Your task to perform on an android device: turn vacation reply on in the gmail app Image 0: 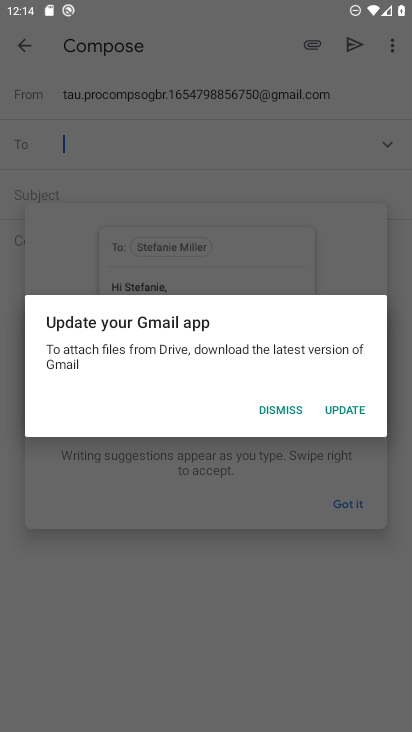
Step 0: press home button
Your task to perform on an android device: turn vacation reply on in the gmail app Image 1: 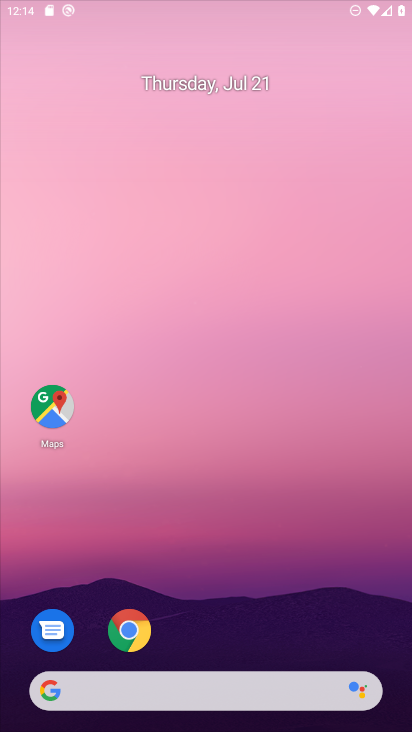
Step 1: drag from (249, 604) to (326, 64)
Your task to perform on an android device: turn vacation reply on in the gmail app Image 2: 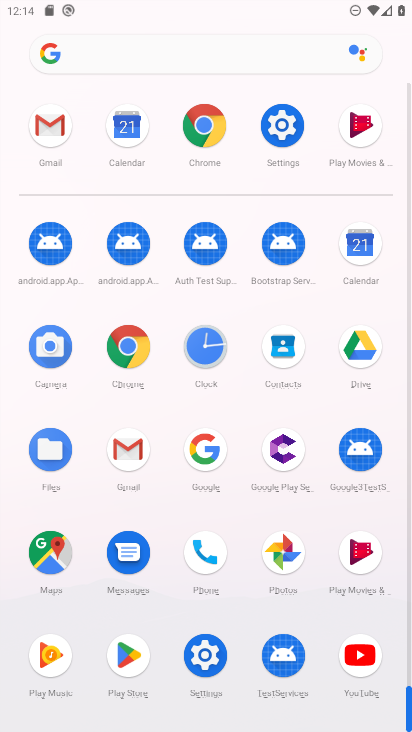
Step 2: click (127, 450)
Your task to perform on an android device: turn vacation reply on in the gmail app Image 3: 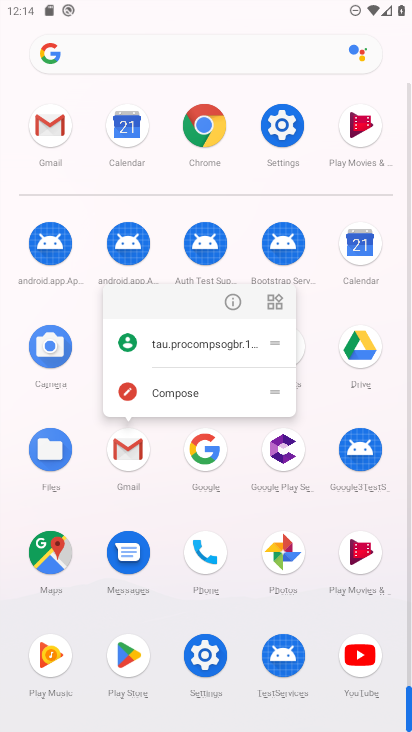
Step 3: click (225, 297)
Your task to perform on an android device: turn vacation reply on in the gmail app Image 4: 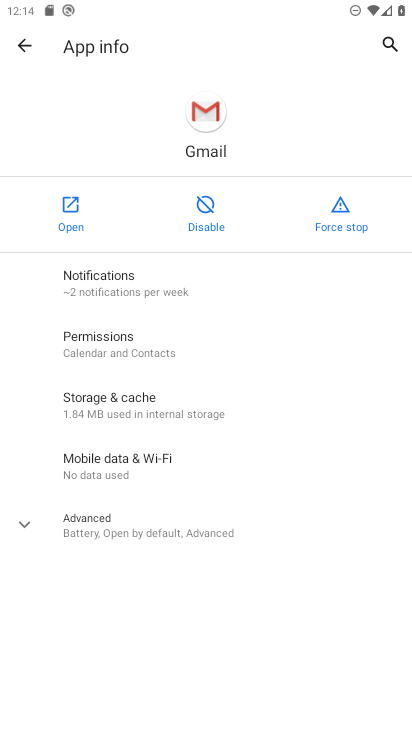
Step 4: click (69, 208)
Your task to perform on an android device: turn vacation reply on in the gmail app Image 5: 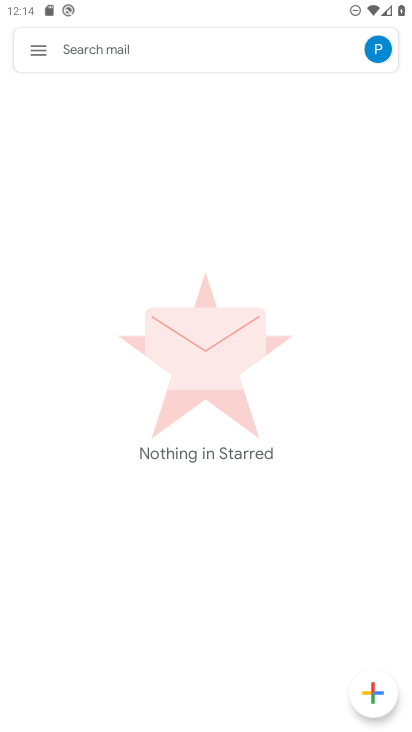
Step 5: click (33, 50)
Your task to perform on an android device: turn vacation reply on in the gmail app Image 6: 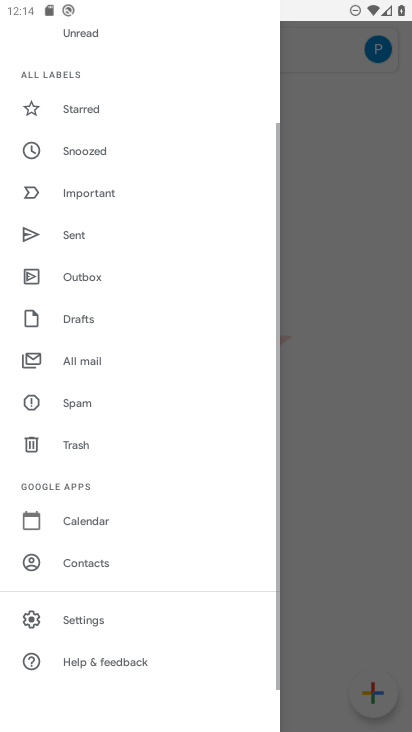
Step 6: click (105, 625)
Your task to perform on an android device: turn vacation reply on in the gmail app Image 7: 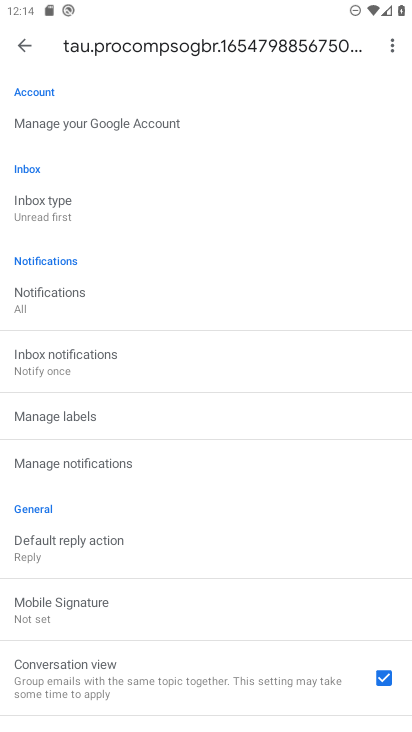
Step 7: drag from (168, 663) to (191, 230)
Your task to perform on an android device: turn vacation reply on in the gmail app Image 8: 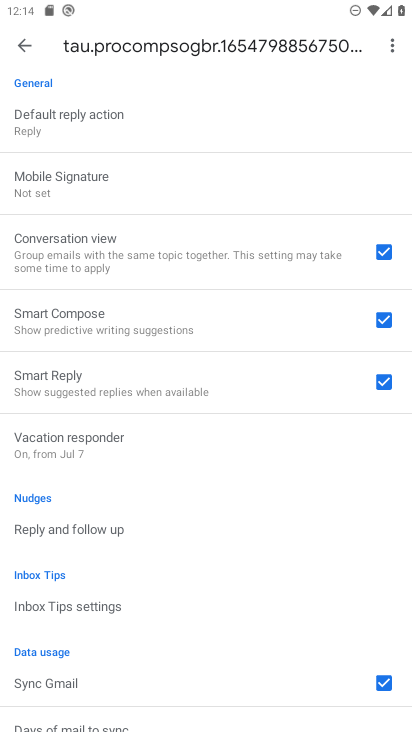
Step 8: click (86, 437)
Your task to perform on an android device: turn vacation reply on in the gmail app Image 9: 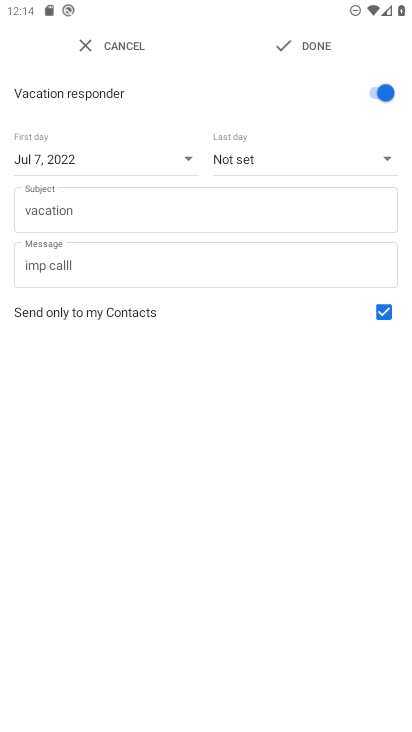
Step 9: click (298, 48)
Your task to perform on an android device: turn vacation reply on in the gmail app Image 10: 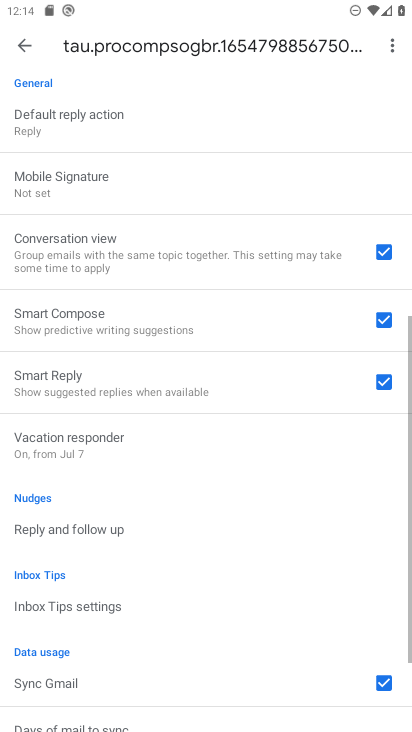
Step 10: task complete